Your task to perform on an android device: change keyboard looks Image 0: 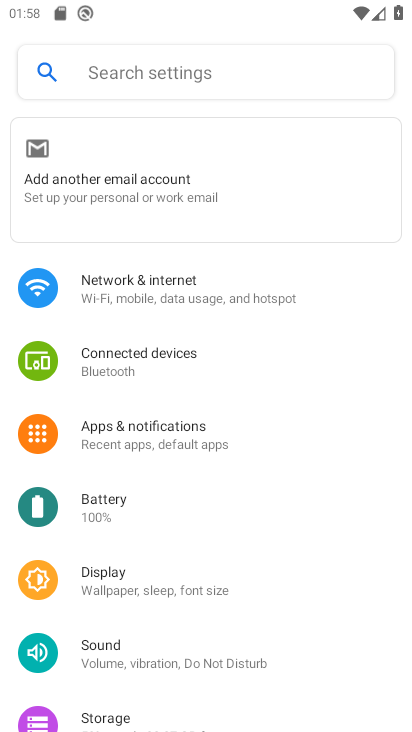
Step 0: press home button
Your task to perform on an android device: change keyboard looks Image 1: 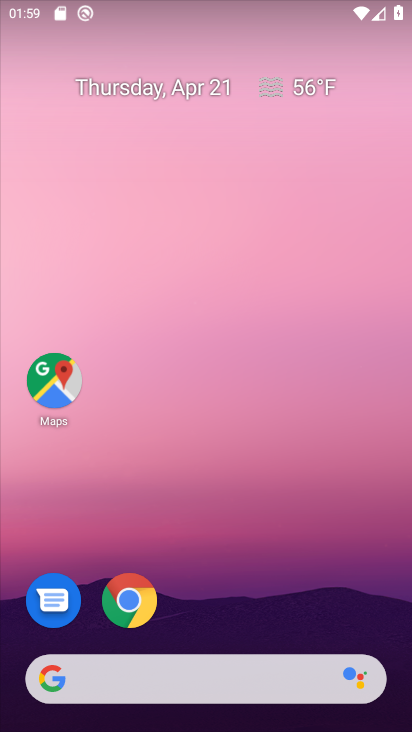
Step 1: drag from (222, 604) to (245, 111)
Your task to perform on an android device: change keyboard looks Image 2: 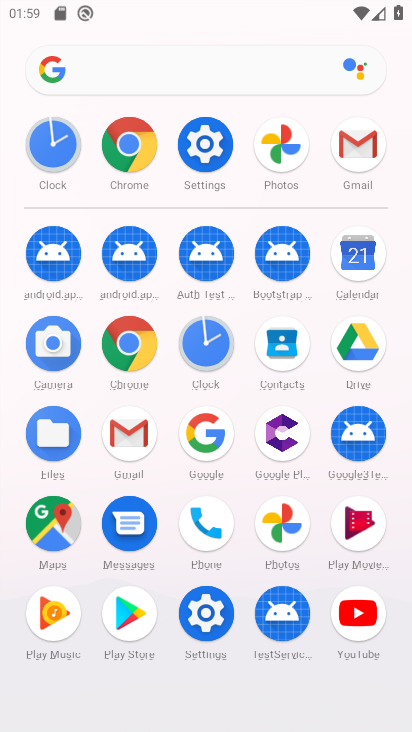
Step 2: click (211, 146)
Your task to perform on an android device: change keyboard looks Image 3: 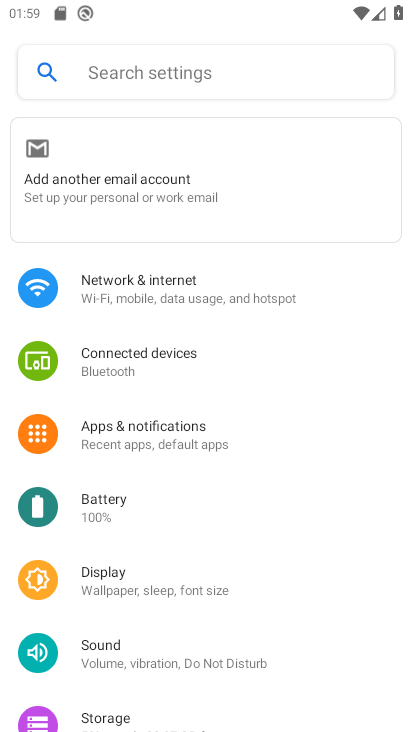
Step 3: drag from (275, 636) to (241, 78)
Your task to perform on an android device: change keyboard looks Image 4: 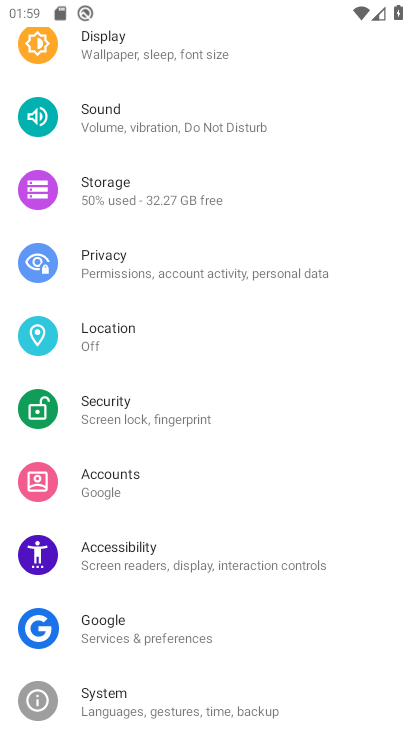
Step 4: click (123, 705)
Your task to perform on an android device: change keyboard looks Image 5: 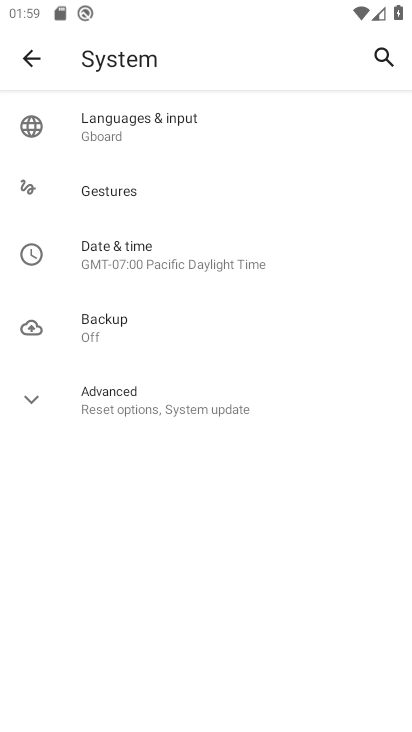
Step 5: click (183, 130)
Your task to perform on an android device: change keyboard looks Image 6: 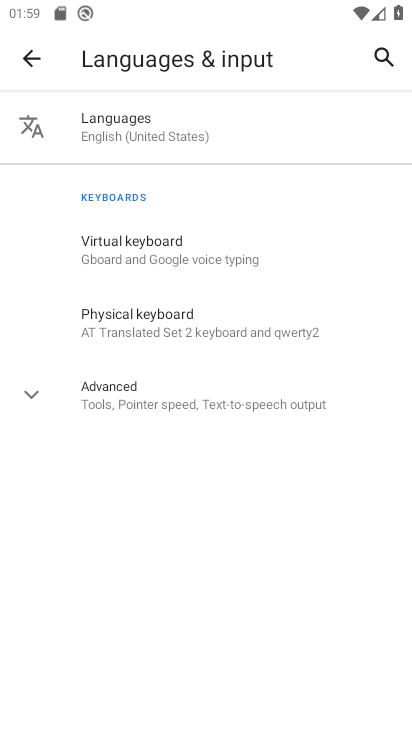
Step 6: click (171, 247)
Your task to perform on an android device: change keyboard looks Image 7: 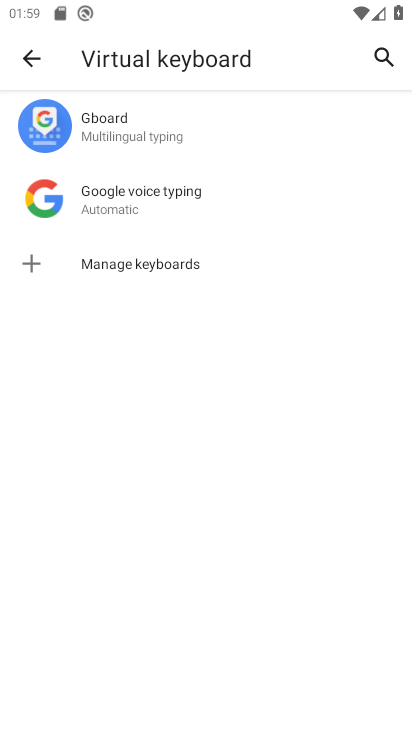
Step 7: click (163, 128)
Your task to perform on an android device: change keyboard looks Image 8: 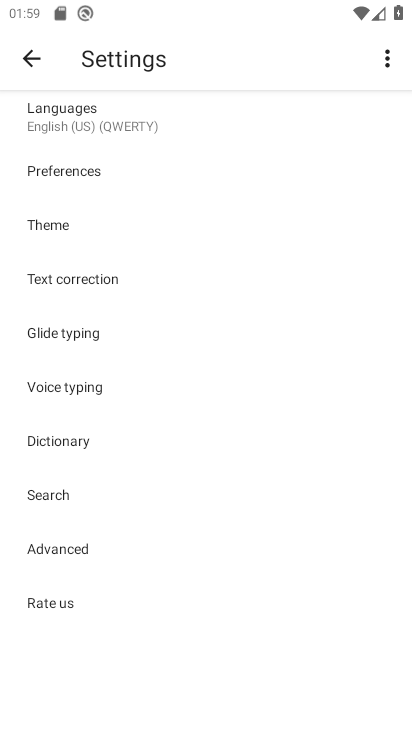
Step 8: click (80, 220)
Your task to perform on an android device: change keyboard looks Image 9: 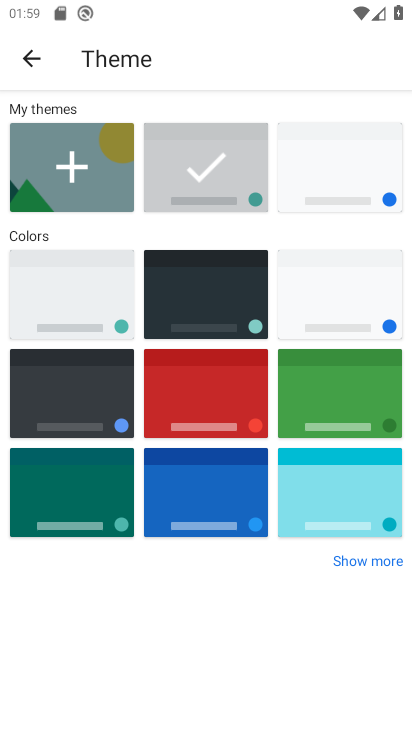
Step 9: click (80, 290)
Your task to perform on an android device: change keyboard looks Image 10: 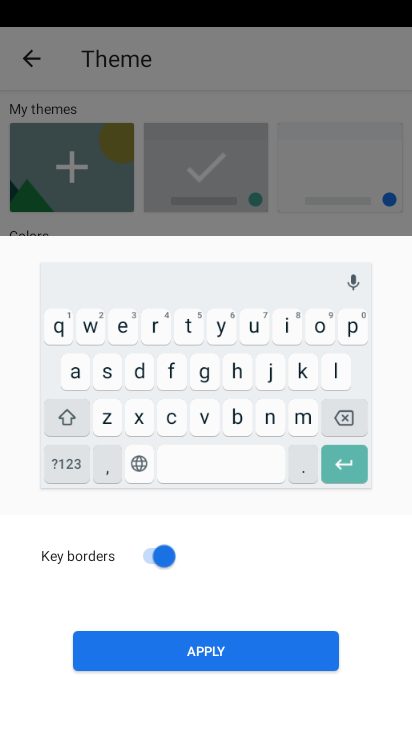
Step 10: click (244, 652)
Your task to perform on an android device: change keyboard looks Image 11: 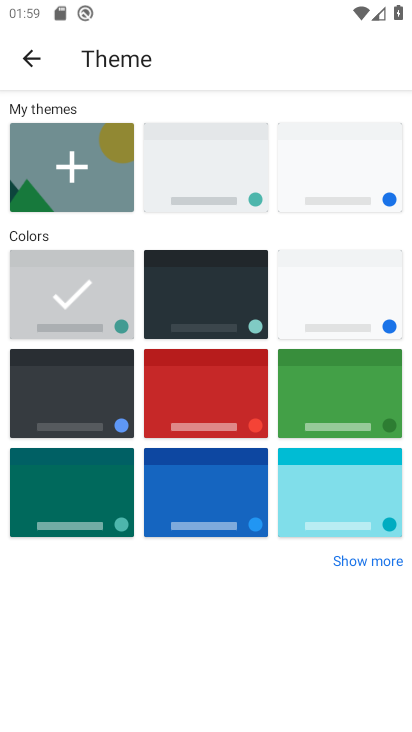
Step 11: task complete